Your task to perform on an android device: turn off picture-in-picture Image 0: 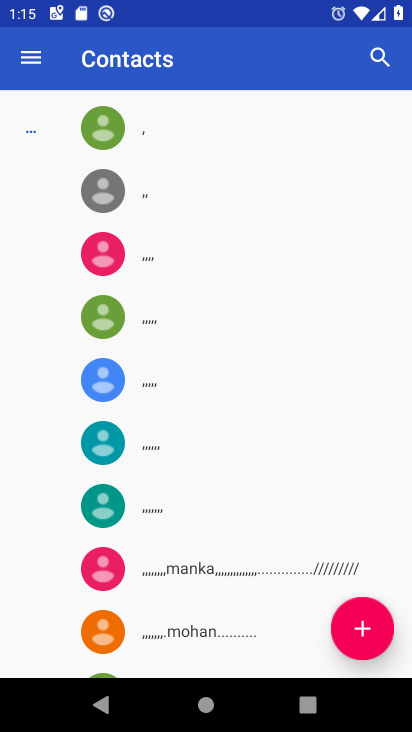
Step 0: press home button
Your task to perform on an android device: turn off picture-in-picture Image 1: 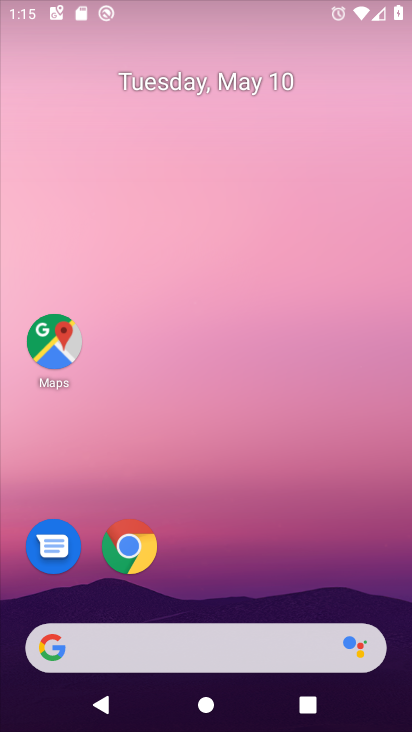
Step 1: click (138, 555)
Your task to perform on an android device: turn off picture-in-picture Image 2: 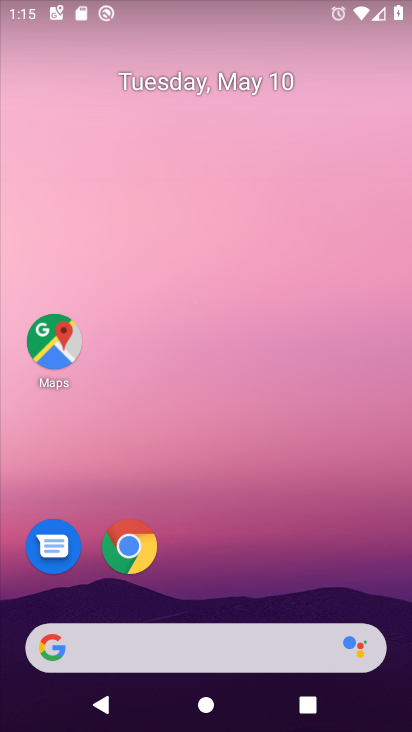
Step 2: click (253, 370)
Your task to perform on an android device: turn off picture-in-picture Image 3: 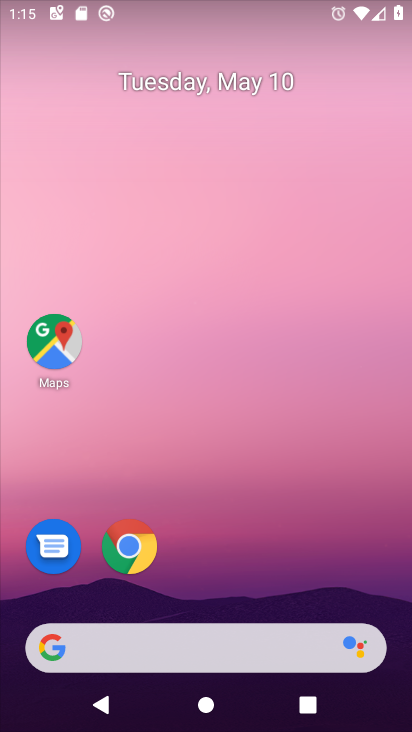
Step 3: click (131, 547)
Your task to perform on an android device: turn off picture-in-picture Image 4: 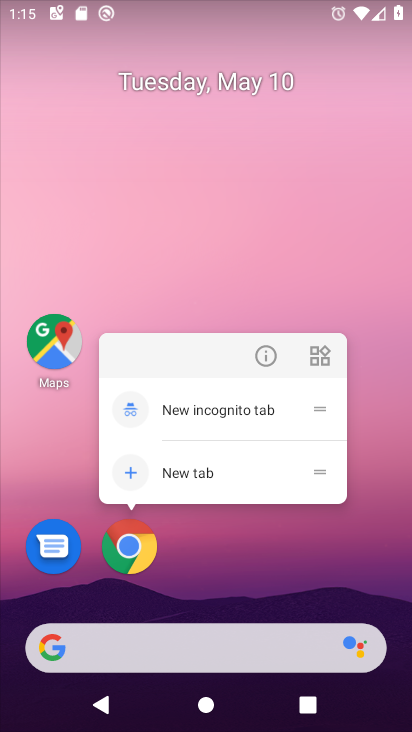
Step 4: click (265, 360)
Your task to perform on an android device: turn off picture-in-picture Image 5: 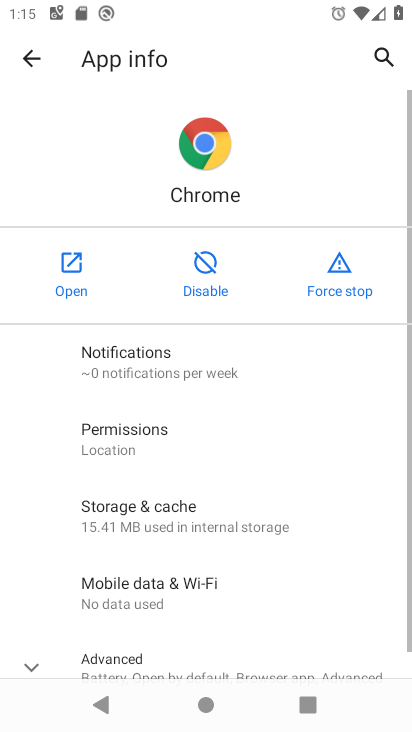
Step 5: drag from (288, 597) to (344, 160)
Your task to perform on an android device: turn off picture-in-picture Image 6: 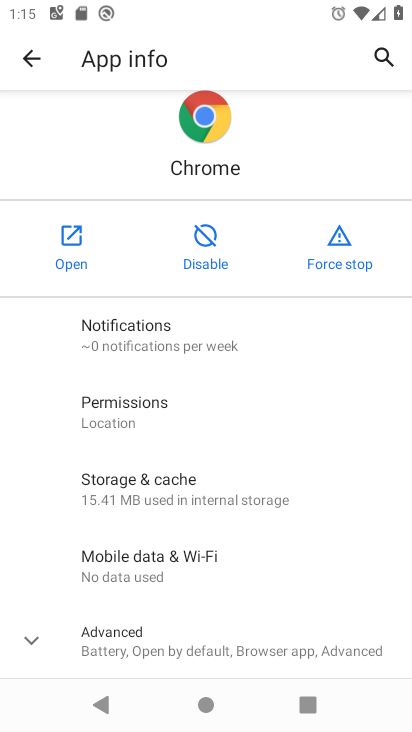
Step 6: click (216, 639)
Your task to perform on an android device: turn off picture-in-picture Image 7: 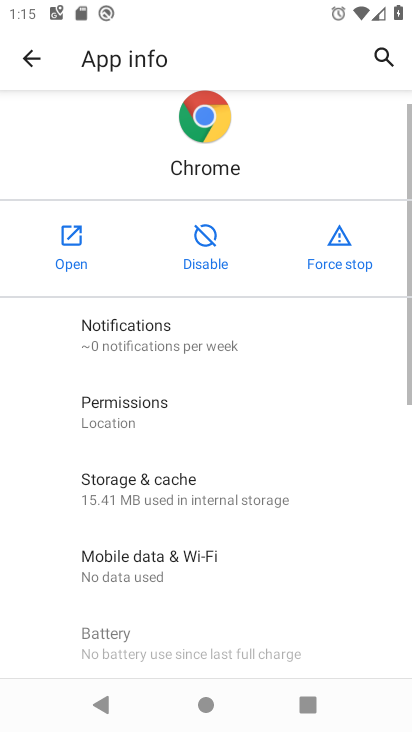
Step 7: drag from (217, 620) to (224, 184)
Your task to perform on an android device: turn off picture-in-picture Image 8: 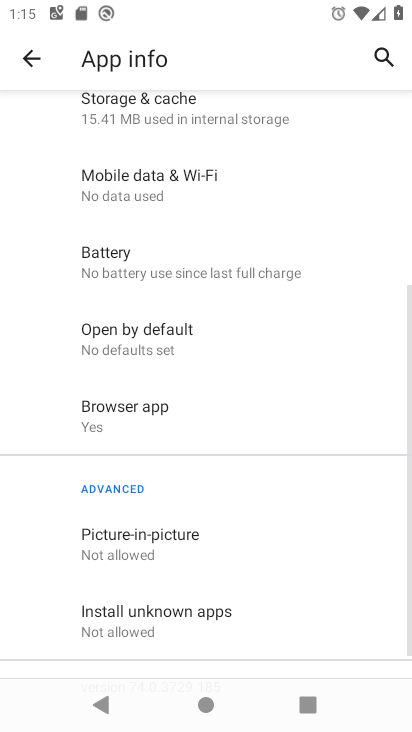
Step 8: drag from (231, 575) to (236, 230)
Your task to perform on an android device: turn off picture-in-picture Image 9: 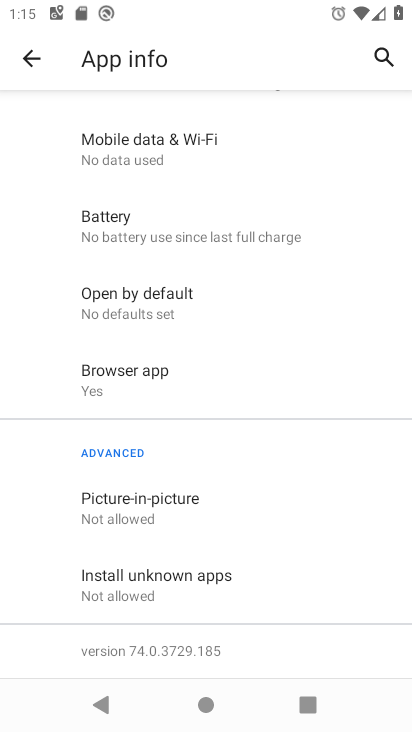
Step 9: click (192, 507)
Your task to perform on an android device: turn off picture-in-picture Image 10: 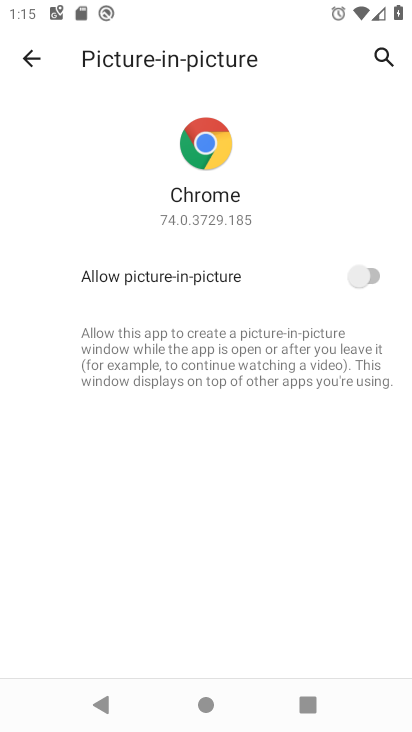
Step 10: task complete